Your task to perform on an android device: toggle notifications settings in the gmail app Image 0: 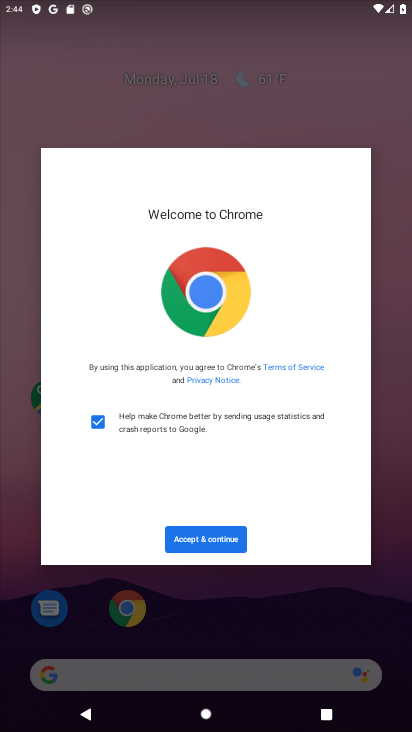
Step 0: press home button
Your task to perform on an android device: toggle notifications settings in the gmail app Image 1: 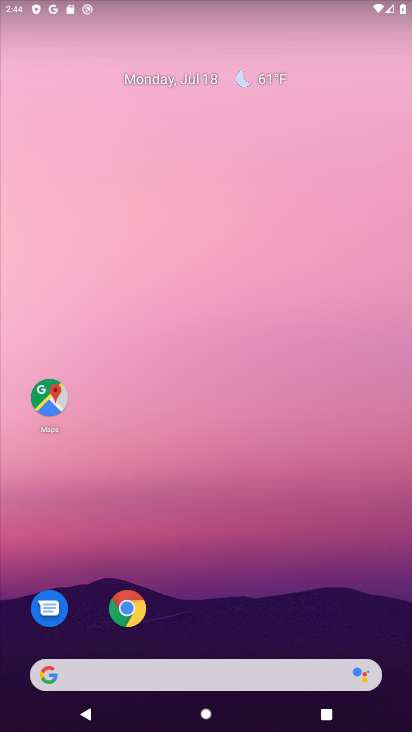
Step 1: drag from (245, 560) to (302, 3)
Your task to perform on an android device: toggle notifications settings in the gmail app Image 2: 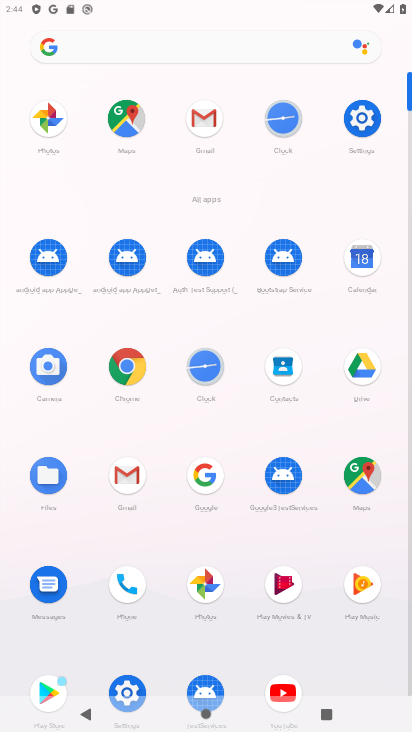
Step 2: click (119, 466)
Your task to perform on an android device: toggle notifications settings in the gmail app Image 3: 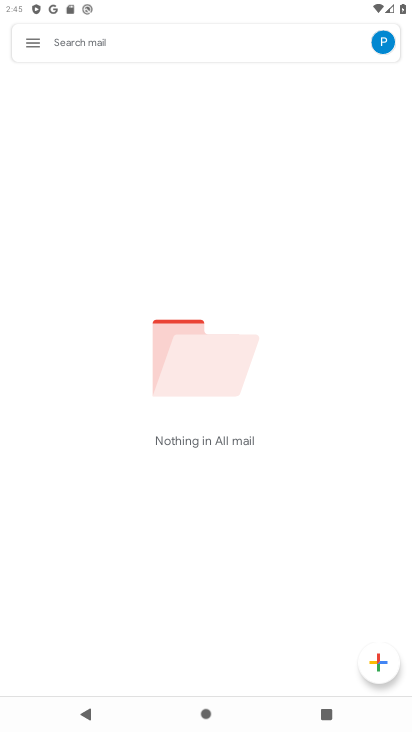
Step 3: click (15, 48)
Your task to perform on an android device: toggle notifications settings in the gmail app Image 4: 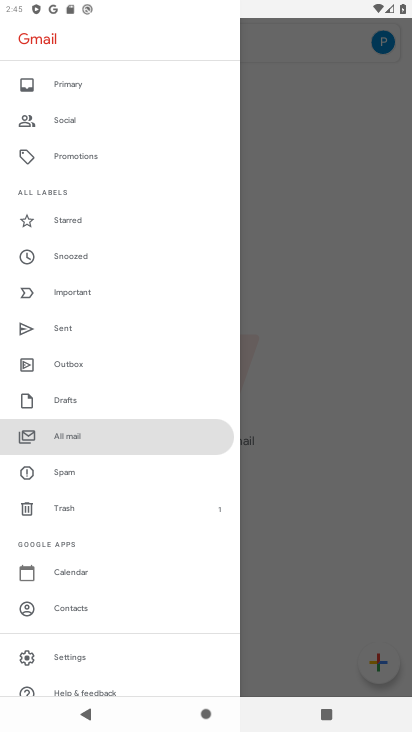
Step 4: click (119, 660)
Your task to perform on an android device: toggle notifications settings in the gmail app Image 5: 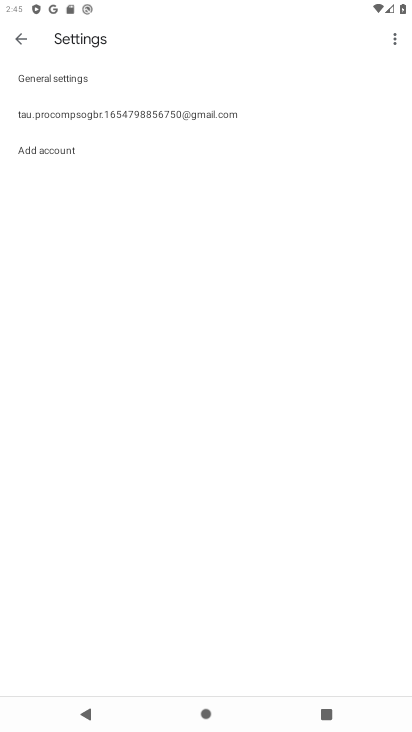
Step 5: click (253, 120)
Your task to perform on an android device: toggle notifications settings in the gmail app Image 6: 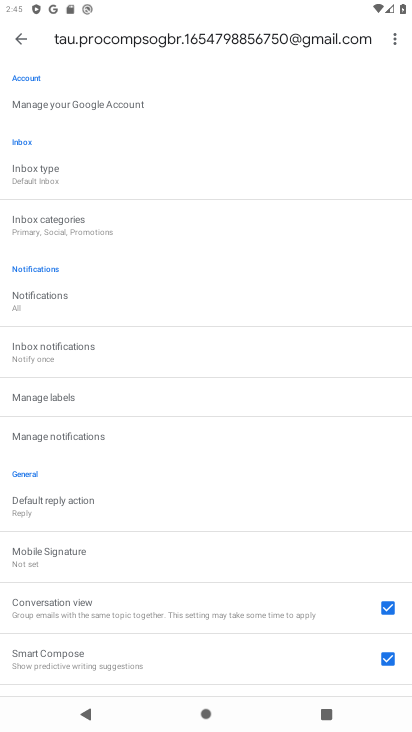
Step 6: click (85, 434)
Your task to perform on an android device: toggle notifications settings in the gmail app Image 7: 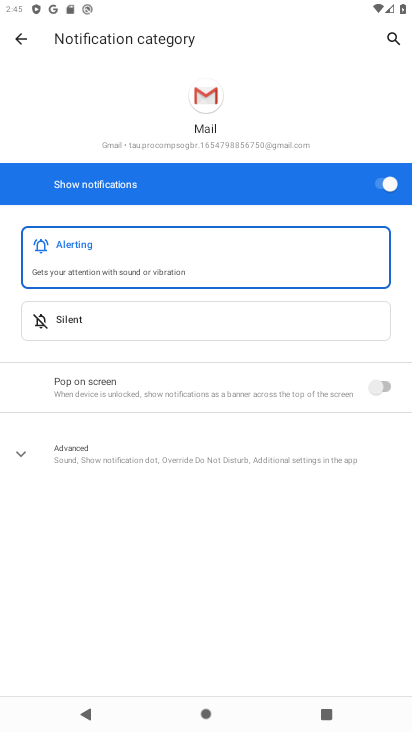
Step 7: click (379, 192)
Your task to perform on an android device: toggle notifications settings in the gmail app Image 8: 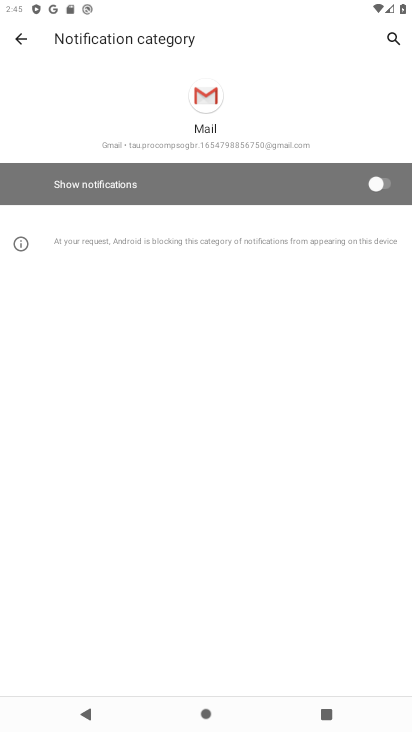
Step 8: task complete